Your task to perform on an android device: change the clock display to digital Image 0: 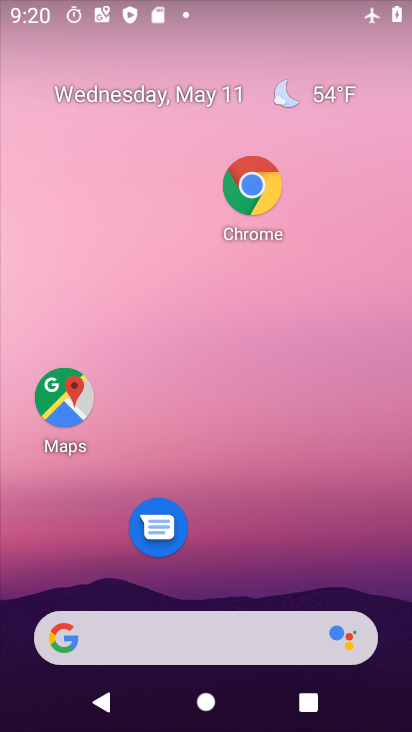
Step 0: drag from (243, 434) to (194, 24)
Your task to perform on an android device: change the clock display to digital Image 1: 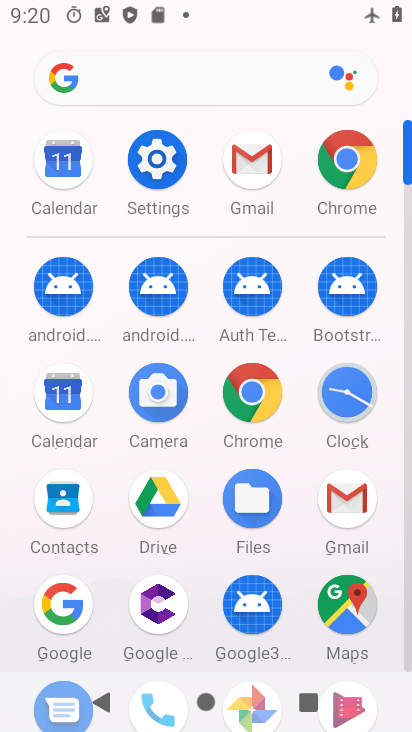
Step 1: click (344, 395)
Your task to perform on an android device: change the clock display to digital Image 2: 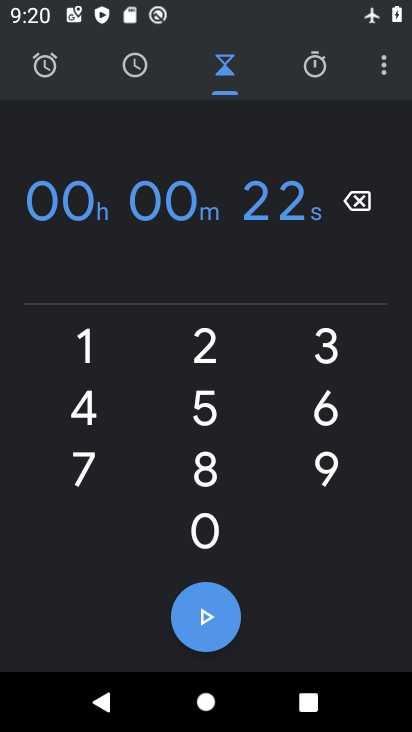
Step 2: click (372, 61)
Your task to perform on an android device: change the clock display to digital Image 3: 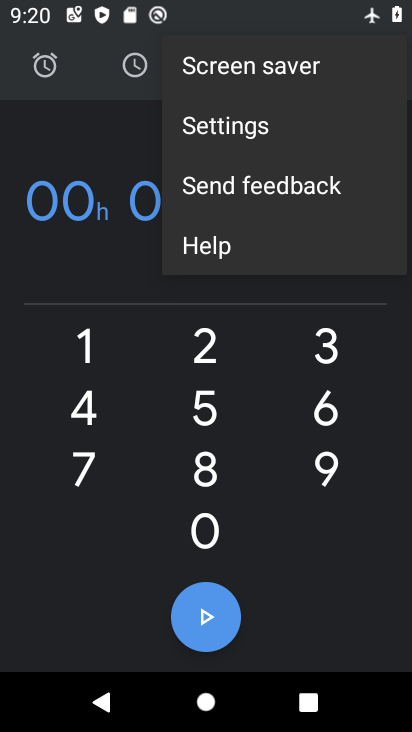
Step 3: click (266, 134)
Your task to perform on an android device: change the clock display to digital Image 4: 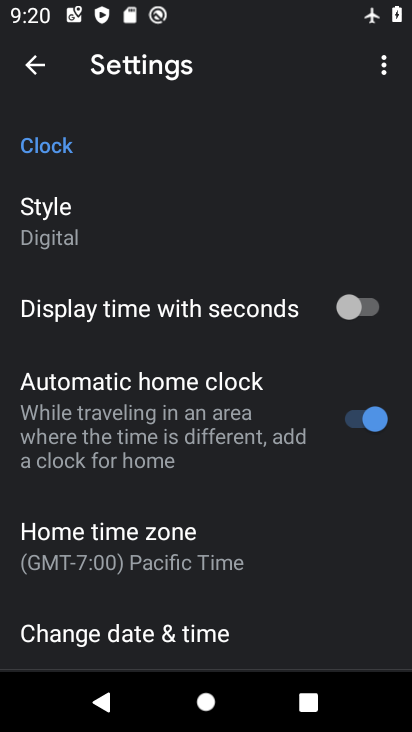
Step 4: click (77, 228)
Your task to perform on an android device: change the clock display to digital Image 5: 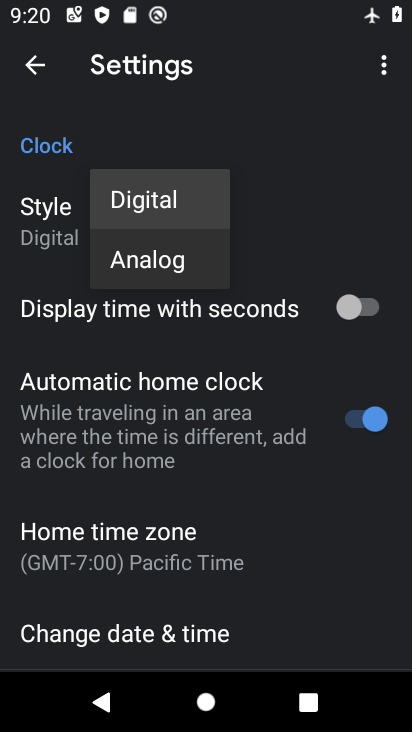
Step 5: task complete